Your task to perform on an android device: Open Google Chrome Image 0: 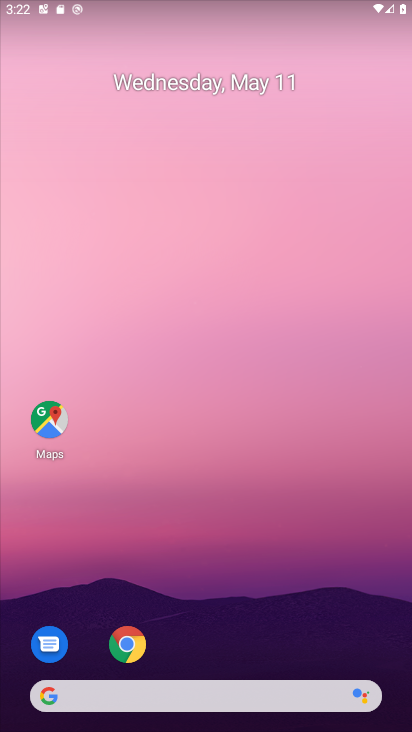
Step 0: click (135, 647)
Your task to perform on an android device: Open Google Chrome Image 1: 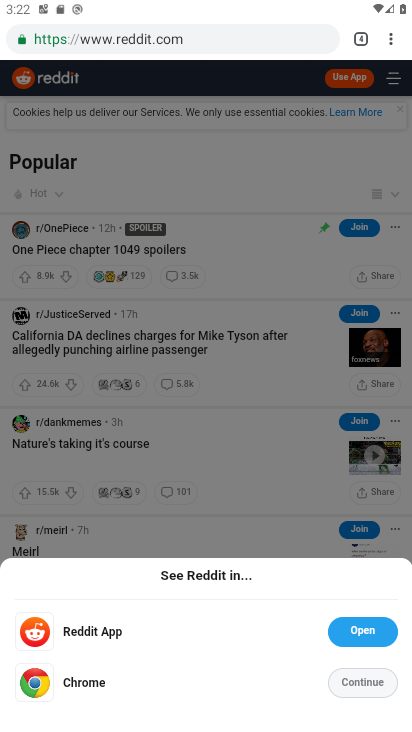
Step 1: task complete